Your task to perform on an android device: install app "Microsoft Authenticator" Image 0: 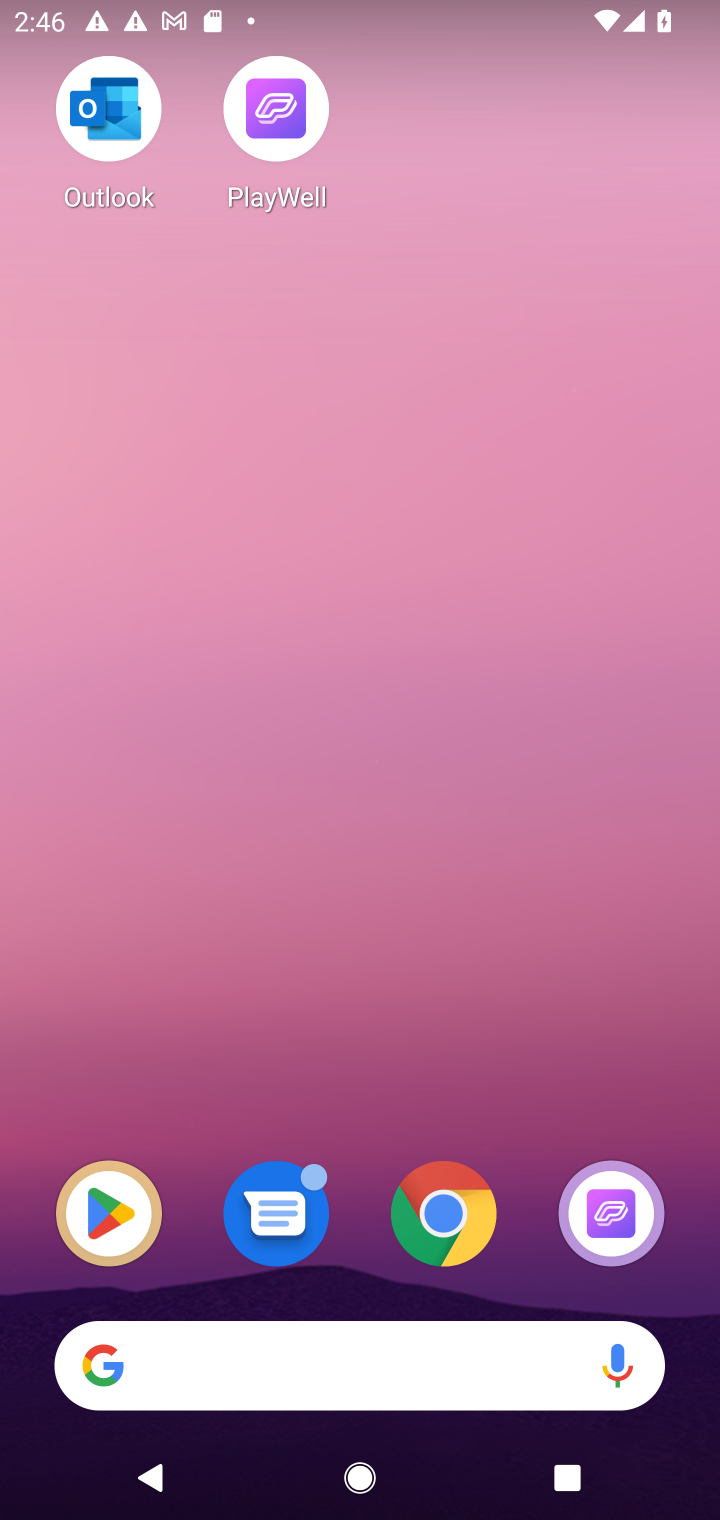
Step 0: drag from (536, 1284) to (607, 62)
Your task to perform on an android device: install app "Microsoft Authenticator" Image 1: 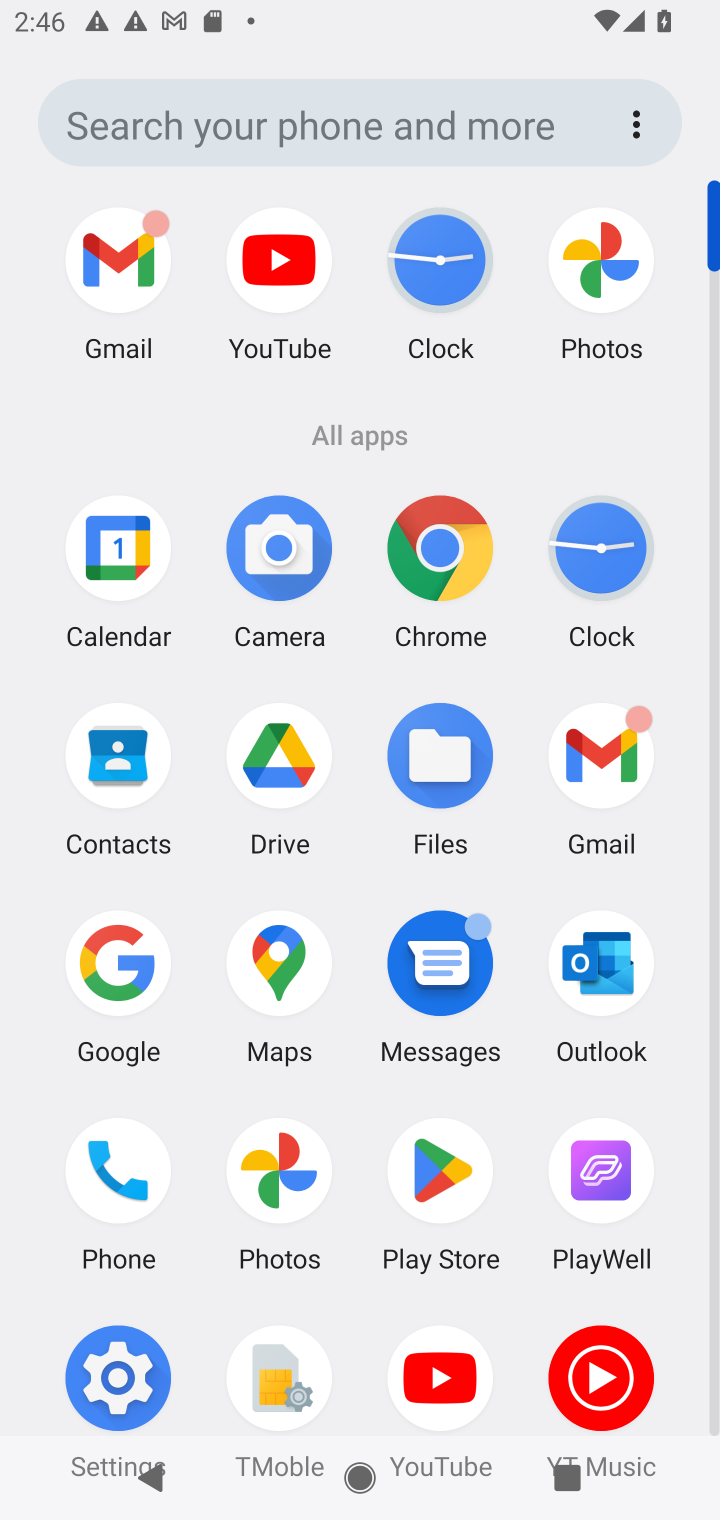
Step 1: click (442, 1185)
Your task to perform on an android device: install app "Microsoft Authenticator" Image 2: 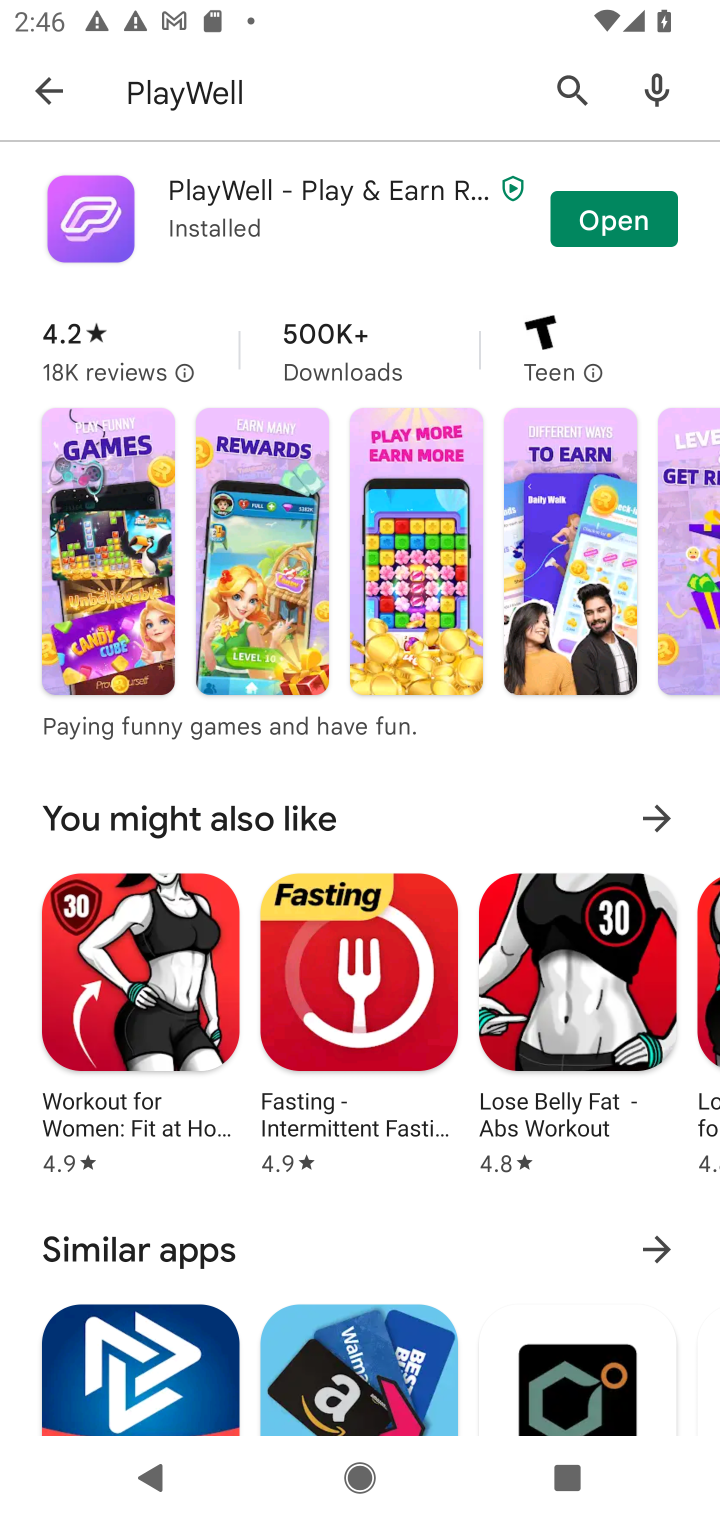
Step 2: click (405, 75)
Your task to perform on an android device: install app "Microsoft Authenticator" Image 3: 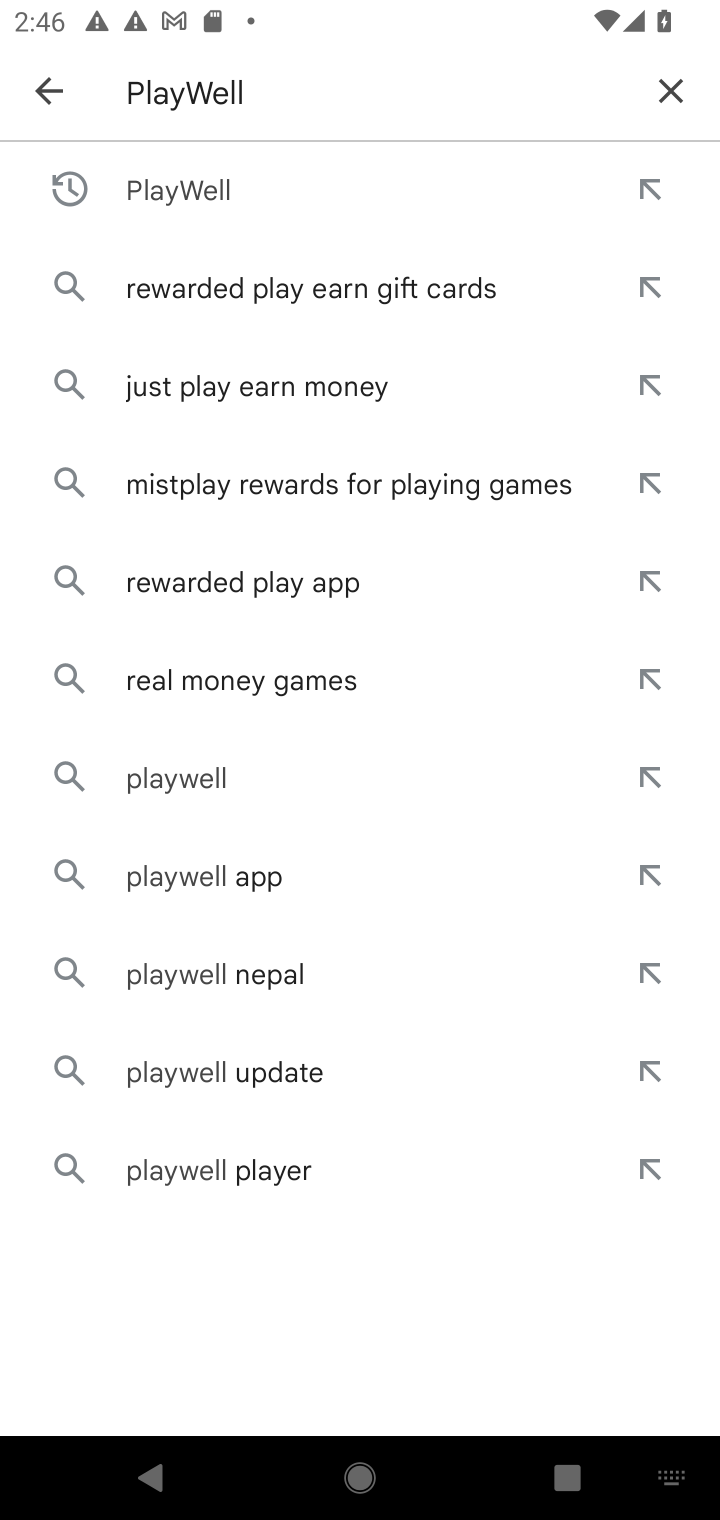
Step 3: click (685, 83)
Your task to perform on an android device: install app "Microsoft Authenticator" Image 4: 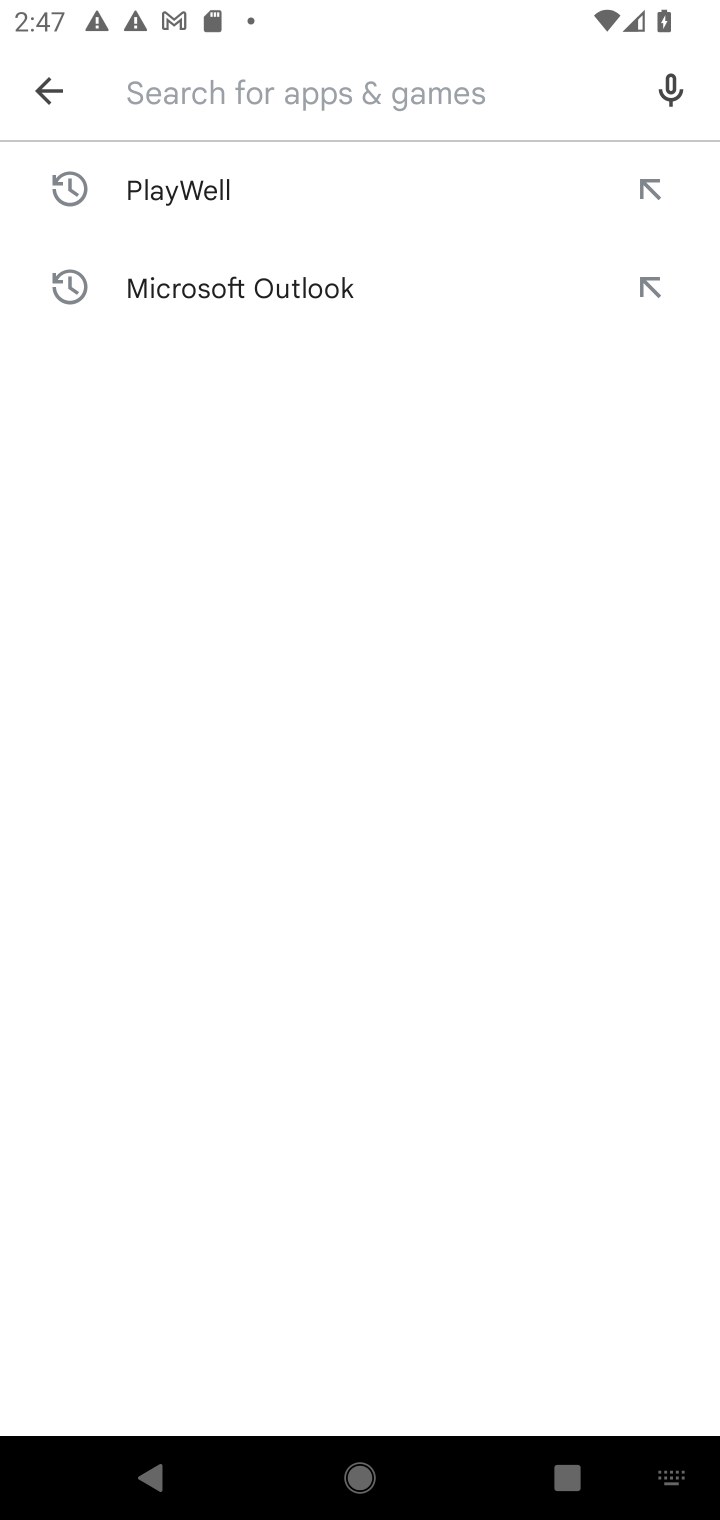
Step 4: type "Microsoft Authenticator"
Your task to perform on an android device: install app "Microsoft Authenticator" Image 5: 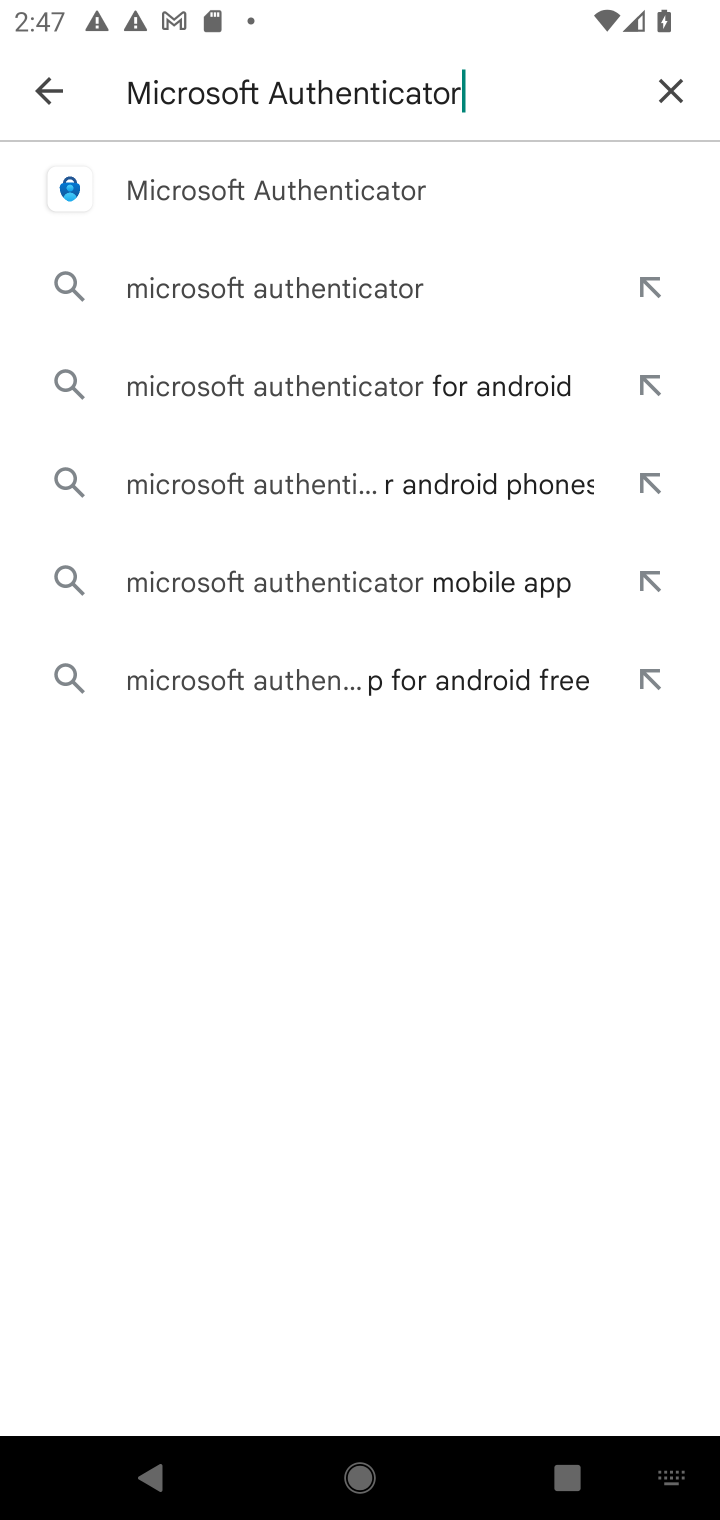
Step 5: press enter
Your task to perform on an android device: install app "Microsoft Authenticator" Image 6: 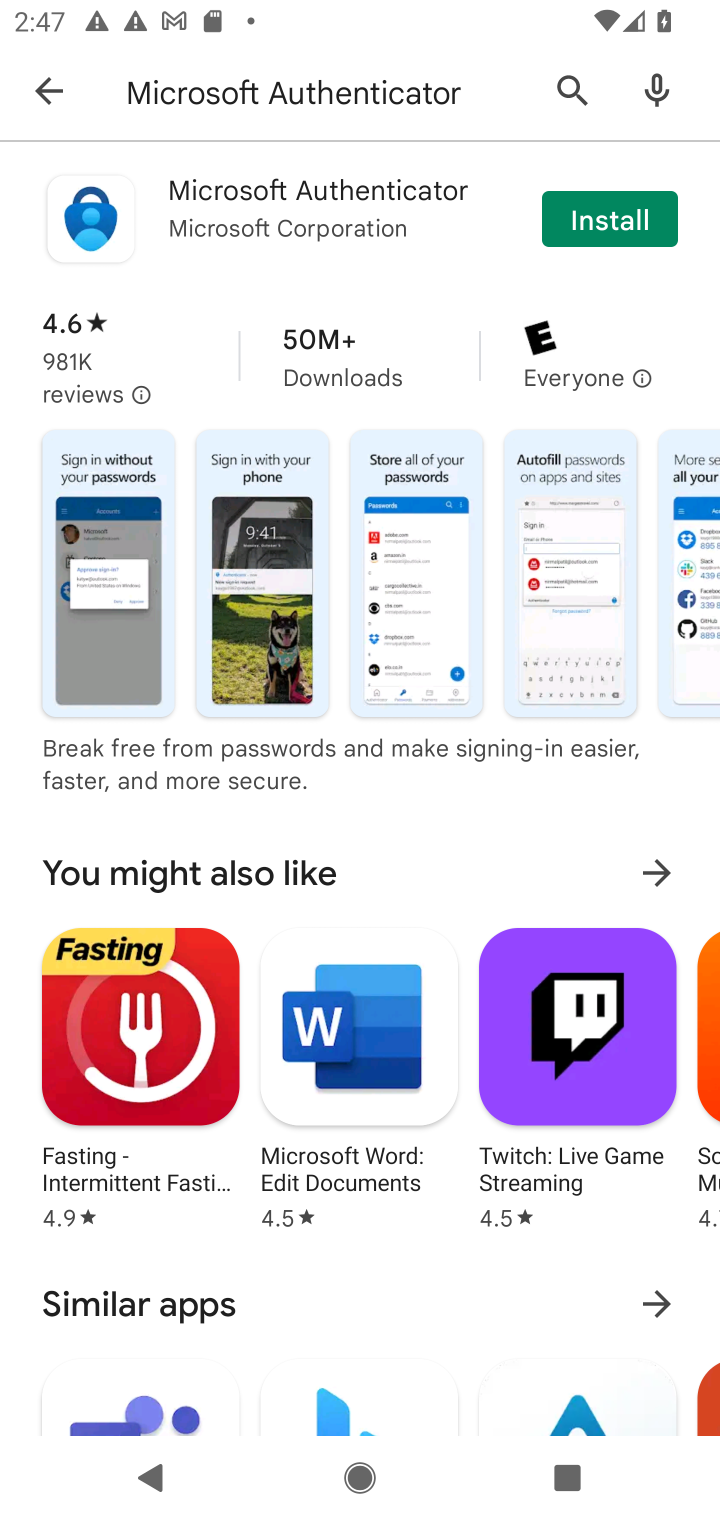
Step 6: click (634, 211)
Your task to perform on an android device: install app "Microsoft Authenticator" Image 7: 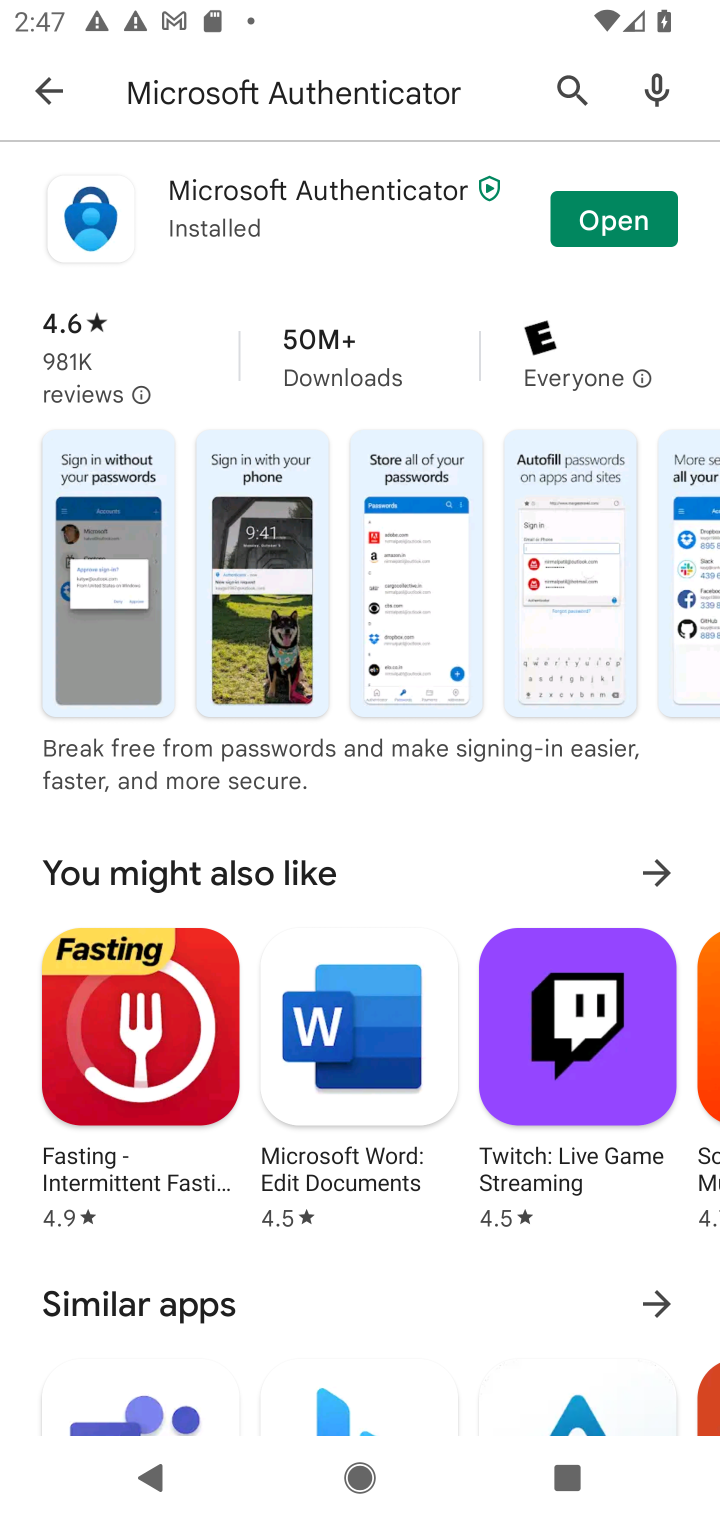
Step 7: task complete